Your task to perform on an android device: see sites visited before in the chrome app Image 0: 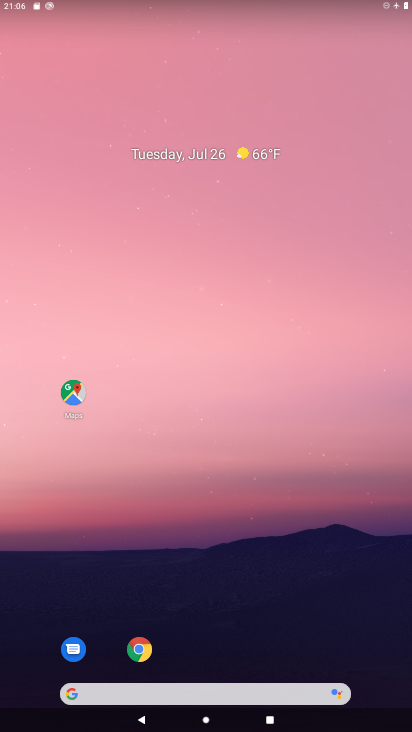
Step 0: drag from (169, 719) to (378, 44)
Your task to perform on an android device: see sites visited before in the chrome app Image 1: 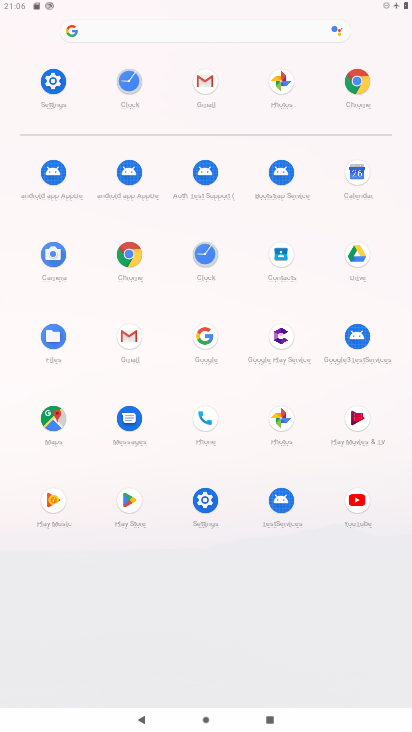
Step 1: click (128, 248)
Your task to perform on an android device: see sites visited before in the chrome app Image 2: 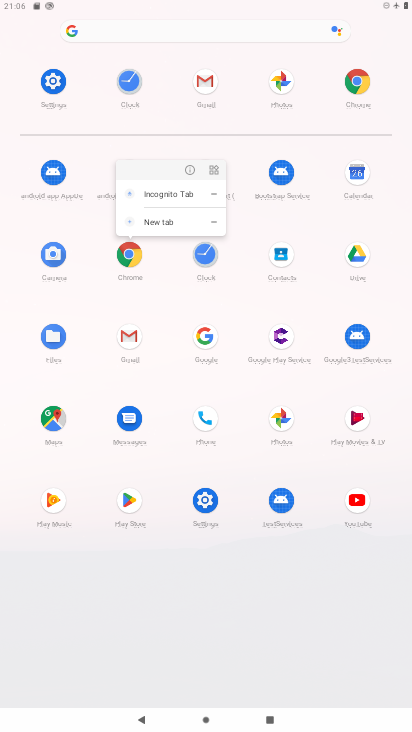
Step 2: click (128, 248)
Your task to perform on an android device: see sites visited before in the chrome app Image 3: 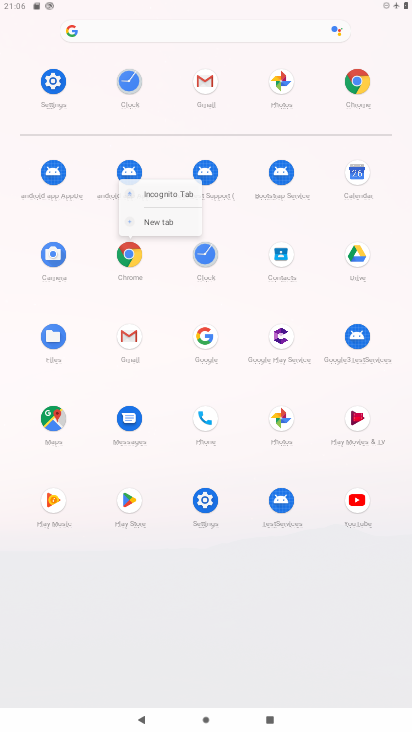
Step 3: click (128, 248)
Your task to perform on an android device: see sites visited before in the chrome app Image 4: 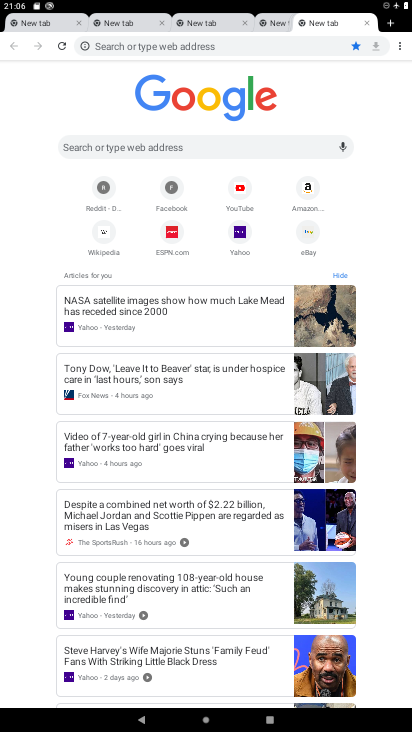
Step 4: click (402, 42)
Your task to perform on an android device: see sites visited before in the chrome app Image 5: 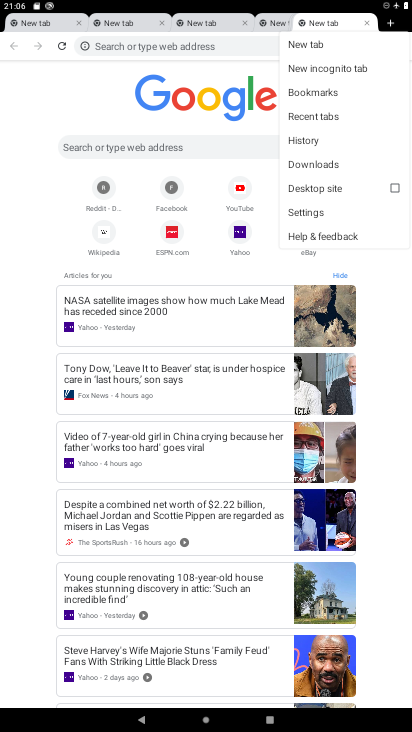
Step 5: click (321, 112)
Your task to perform on an android device: see sites visited before in the chrome app Image 6: 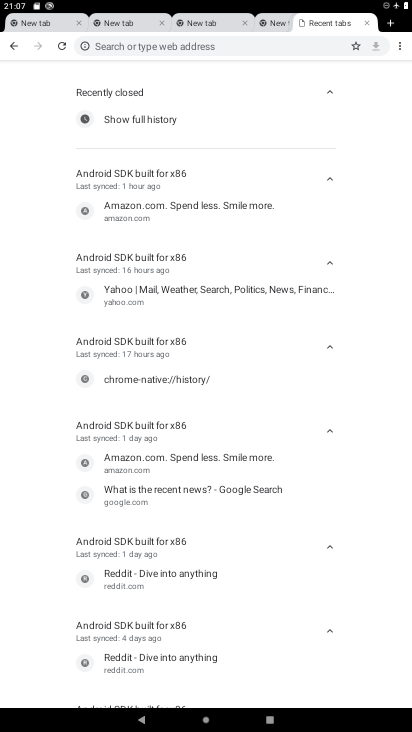
Step 6: task complete